Your task to perform on an android device: Play the last video I watched on Youtube Image 0: 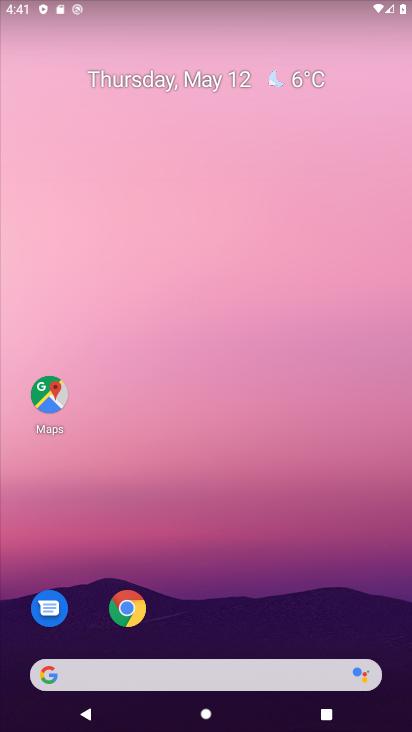
Step 0: drag from (298, 557) to (351, 133)
Your task to perform on an android device: Play the last video I watched on Youtube Image 1: 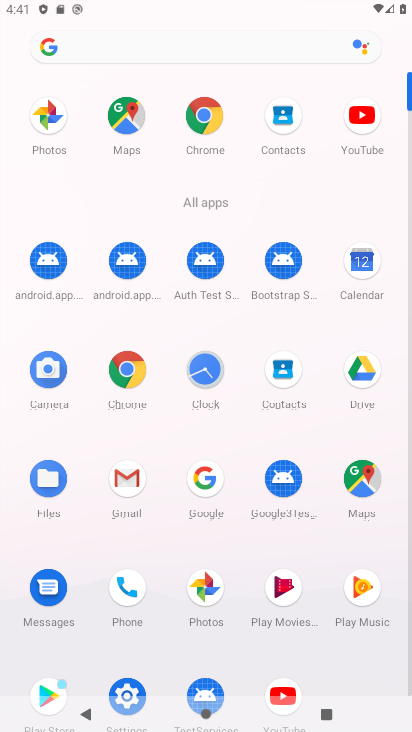
Step 1: click (356, 111)
Your task to perform on an android device: Play the last video I watched on Youtube Image 2: 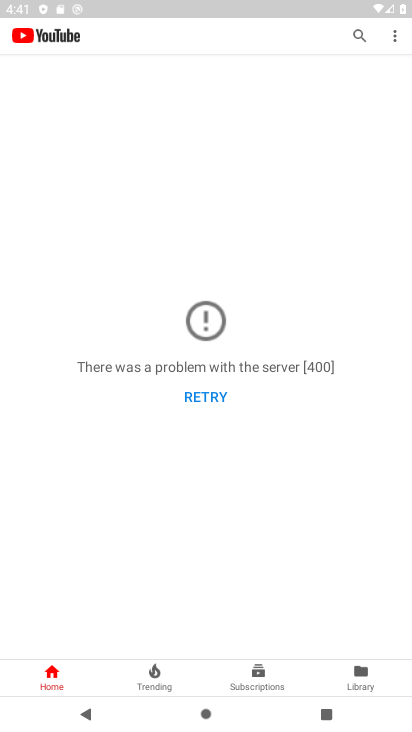
Step 2: task complete